Your task to perform on an android device: Go to wifi settings Image 0: 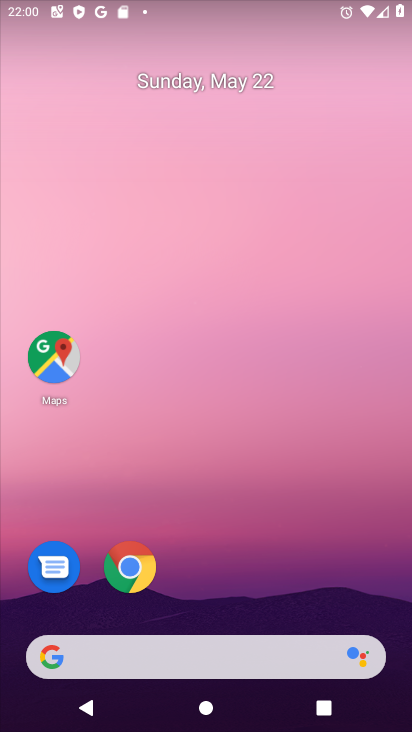
Step 0: drag from (214, 608) to (217, 5)
Your task to perform on an android device: Go to wifi settings Image 1: 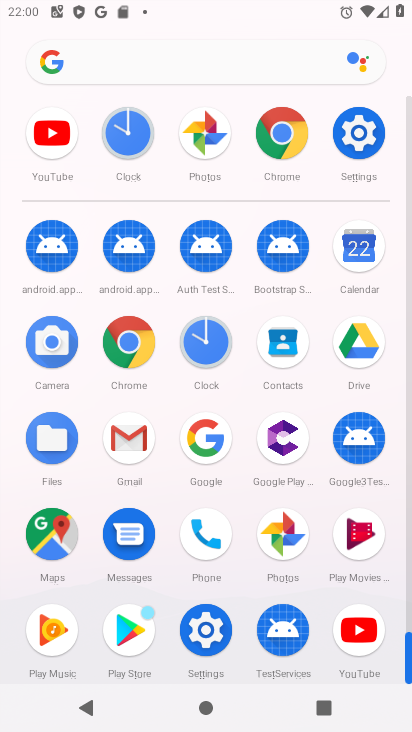
Step 1: click (353, 146)
Your task to perform on an android device: Go to wifi settings Image 2: 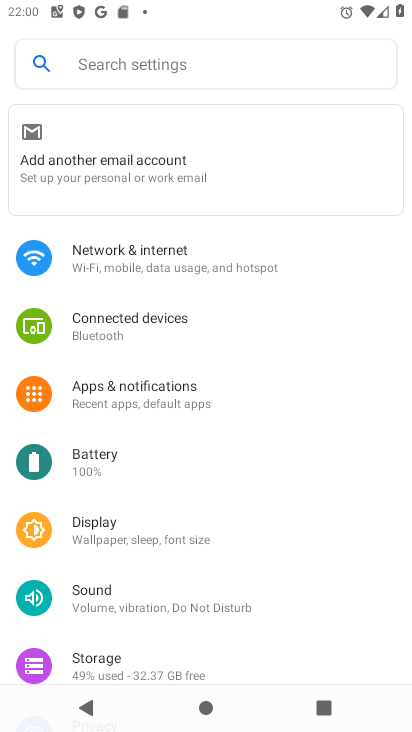
Step 2: click (180, 263)
Your task to perform on an android device: Go to wifi settings Image 3: 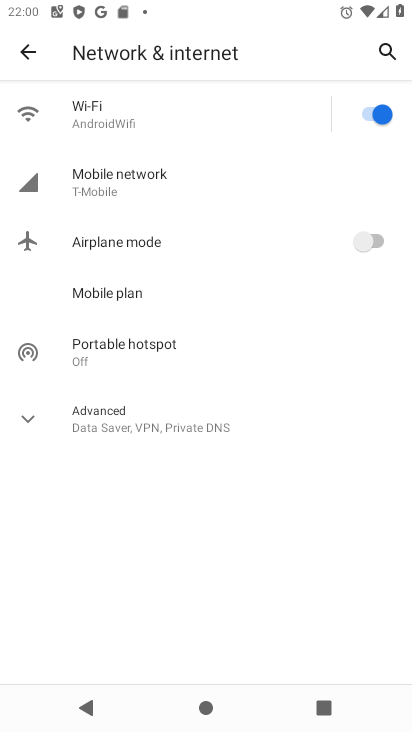
Step 3: click (125, 120)
Your task to perform on an android device: Go to wifi settings Image 4: 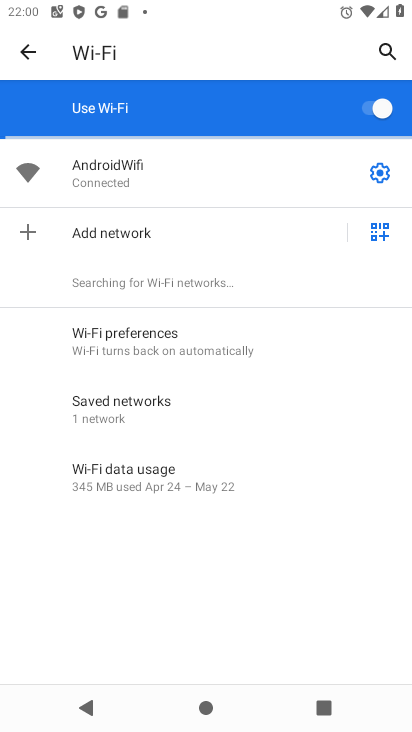
Step 4: task complete